Your task to perform on an android device: open app "Adobe Acrobat Reader: Edit PDF" (install if not already installed) and enter user name: "arthritis@inbox.com" and password: "scythes" Image 0: 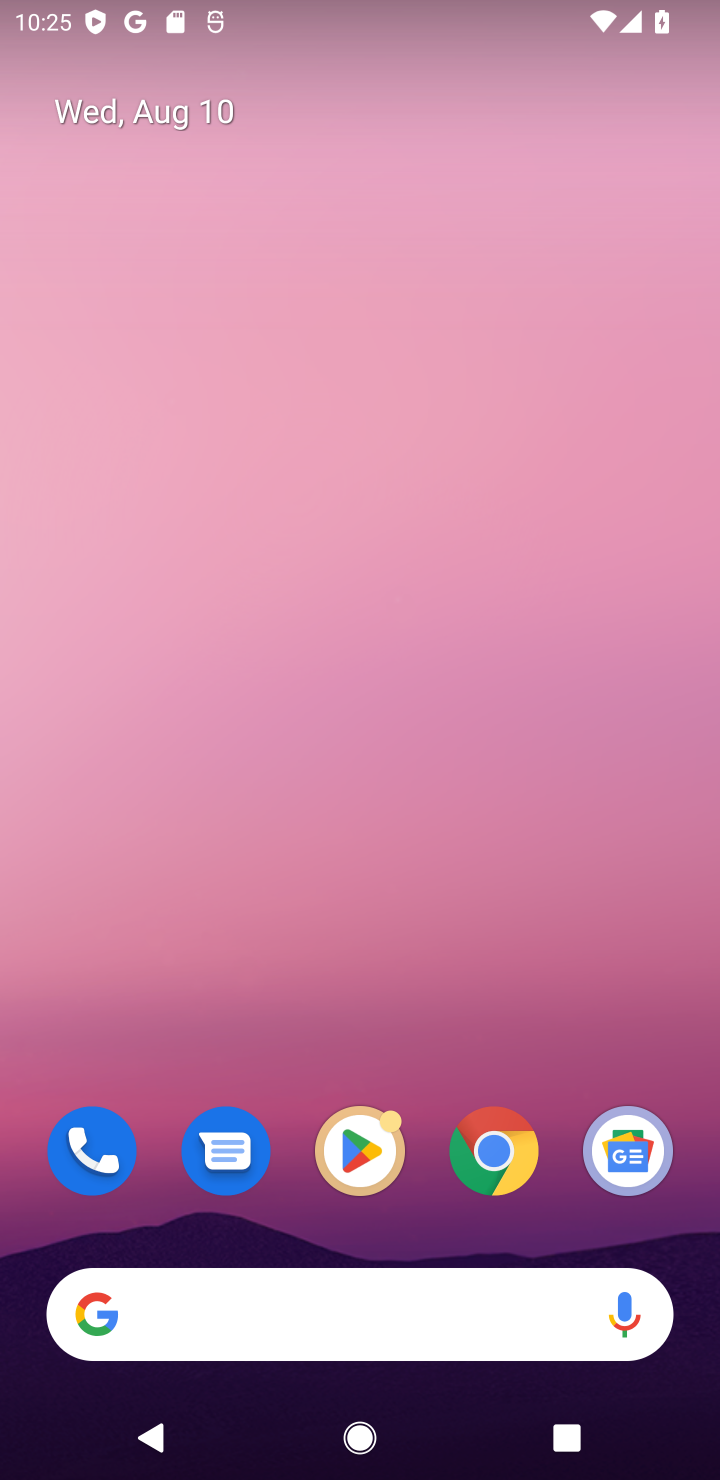
Step 0: click (343, 1140)
Your task to perform on an android device: open app "Adobe Acrobat Reader: Edit PDF" (install if not already installed) and enter user name: "arthritis@inbox.com" and password: "scythes" Image 1: 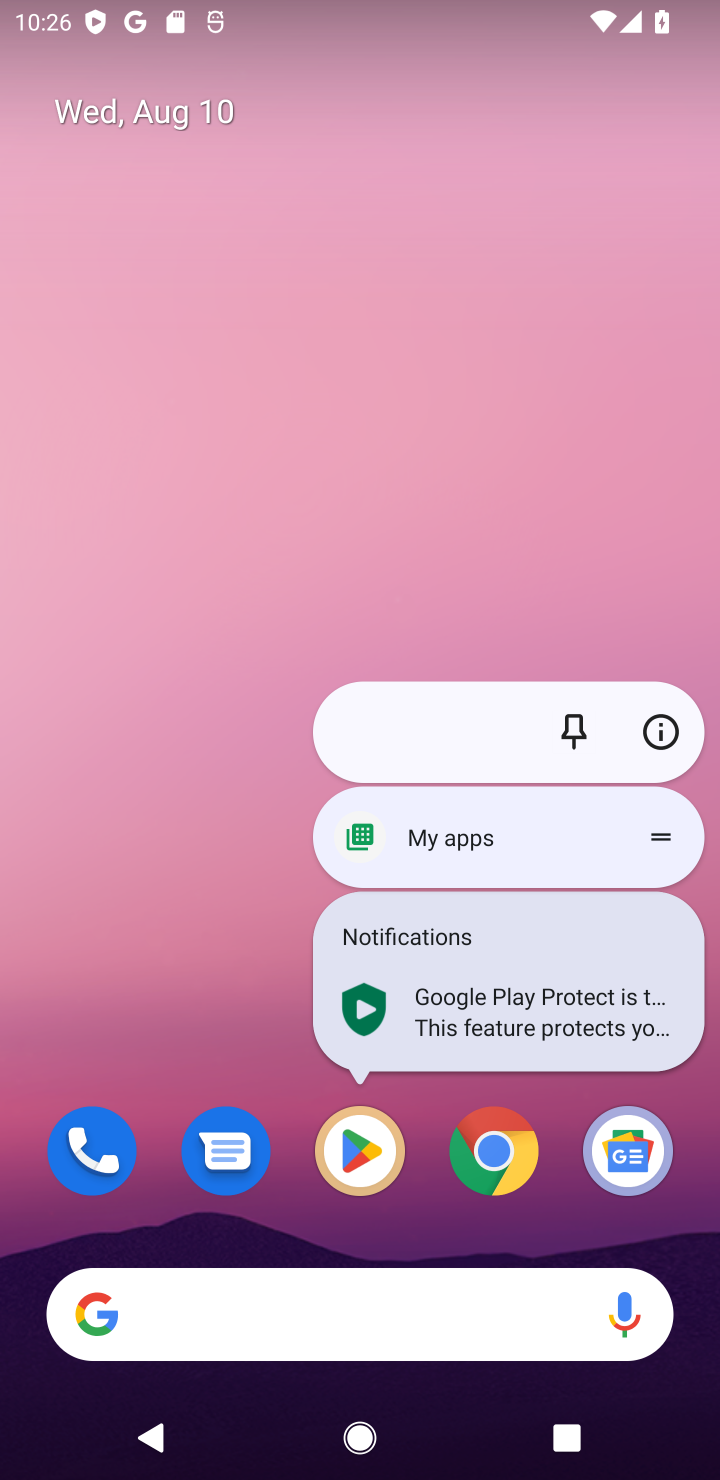
Step 1: click (348, 1167)
Your task to perform on an android device: open app "Adobe Acrobat Reader: Edit PDF" (install if not already installed) and enter user name: "arthritis@inbox.com" and password: "scythes" Image 2: 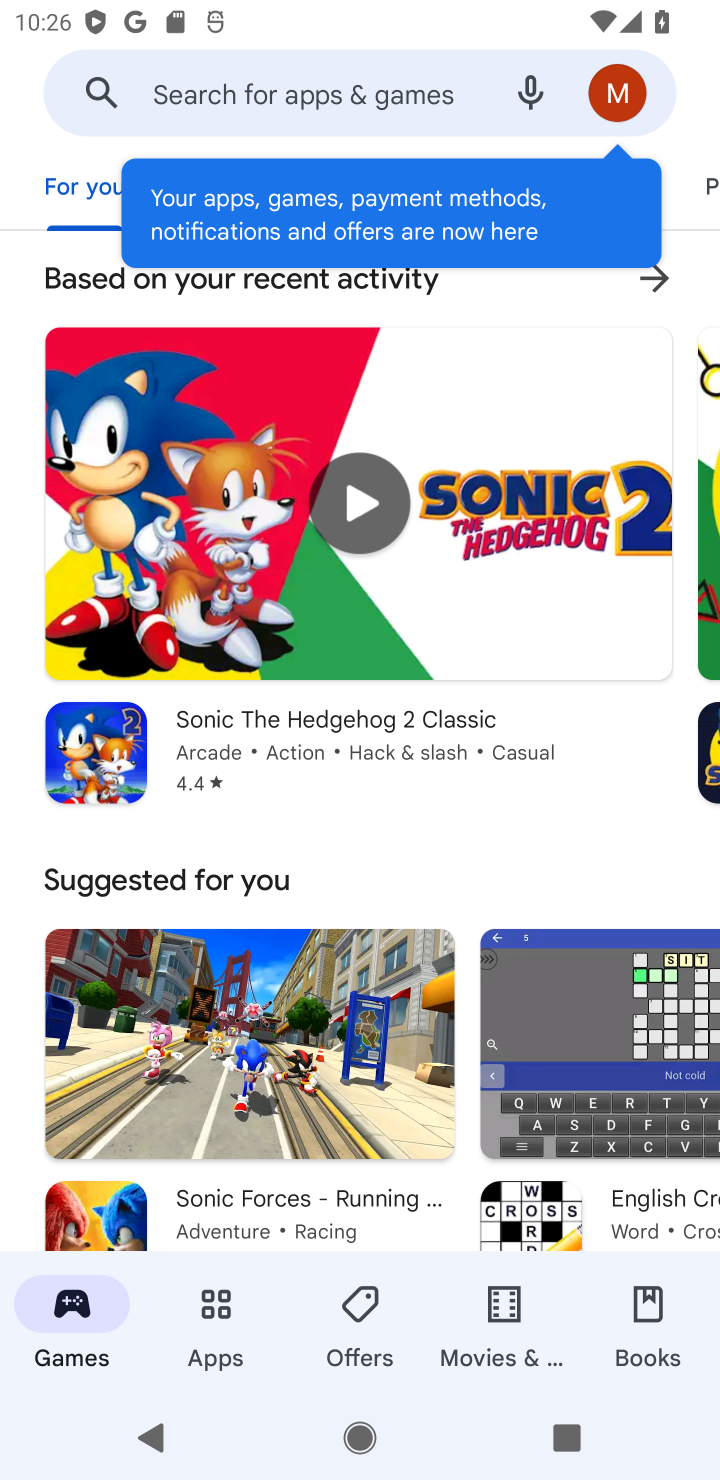
Step 2: click (318, 101)
Your task to perform on an android device: open app "Adobe Acrobat Reader: Edit PDF" (install if not already installed) and enter user name: "arthritis@inbox.com" and password: "scythes" Image 3: 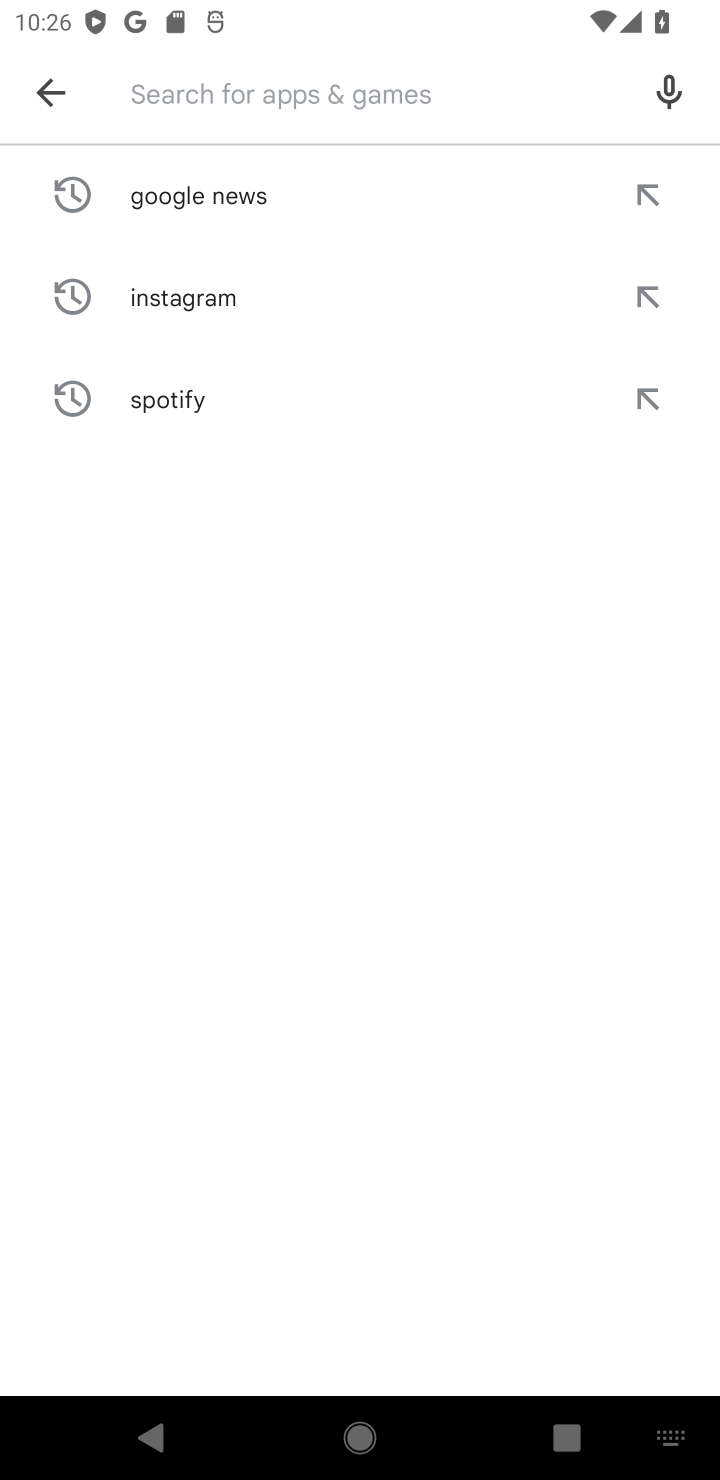
Step 3: click (257, 81)
Your task to perform on an android device: open app "Adobe Acrobat Reader: Edit PDF" (install if not already installed) and enter user name: "arthritis@inbox.com" and password: "scythes" Image 4: 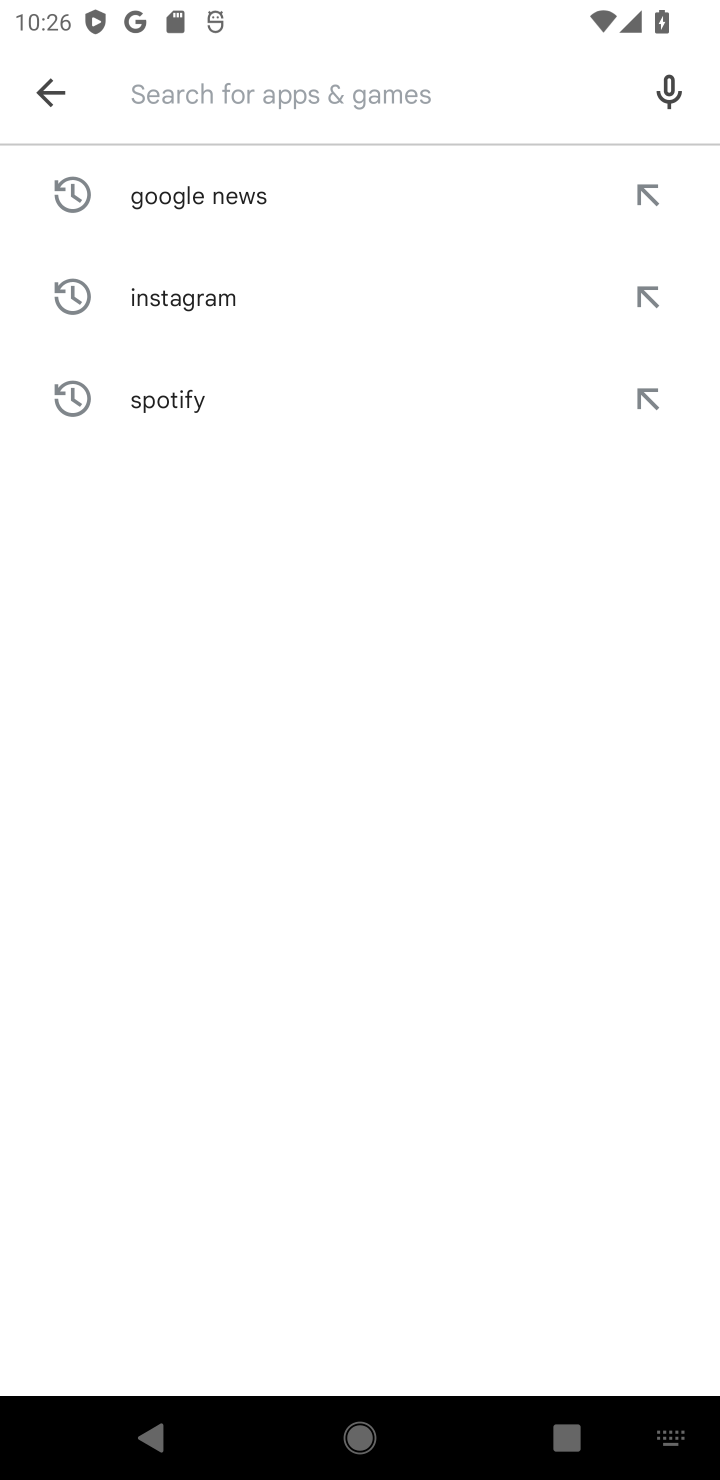
Step 4: type "Adobe Acrobat Reade"
Your task to perform on an android device: open app "Adobe Acrobat Reader: Edit PDF" (install if not already installed) and enter user name: "arthritis@inbox.com" and password: "scythes" Image 5: 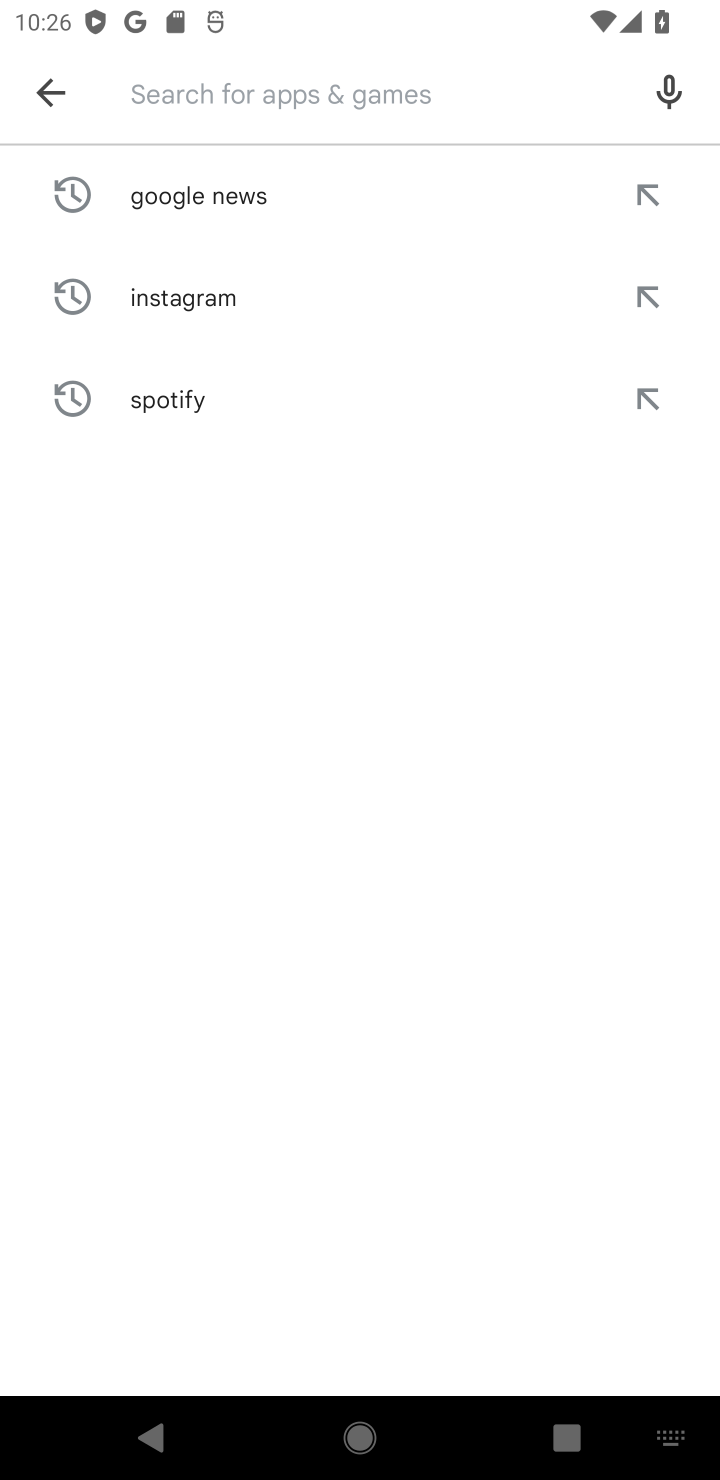
Step 5: click (313, 769)
Your task to perform on an android device: open app "Adobe Acrobat Reader: Edit PDF" (install if not already installed) and enter user name: "arthritis@inbox.com" and password: "scythes" Image 6: 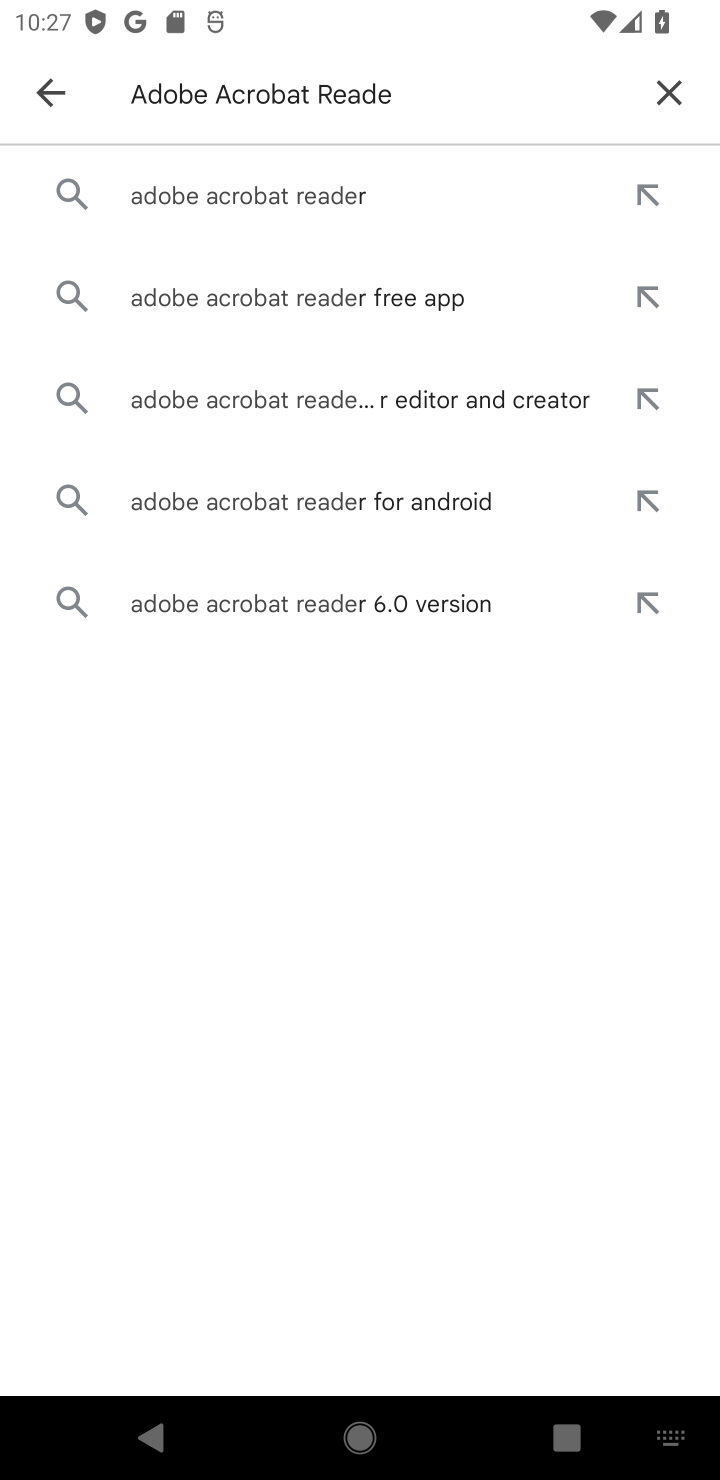
Step 6: press back button
Your task to perform on an android device: open app "Adobe Acrobat Reader: Edit PDF" (install if not already installed) and enter user name: "arthritis@inbox.com" and password: "scythes" Image 7: 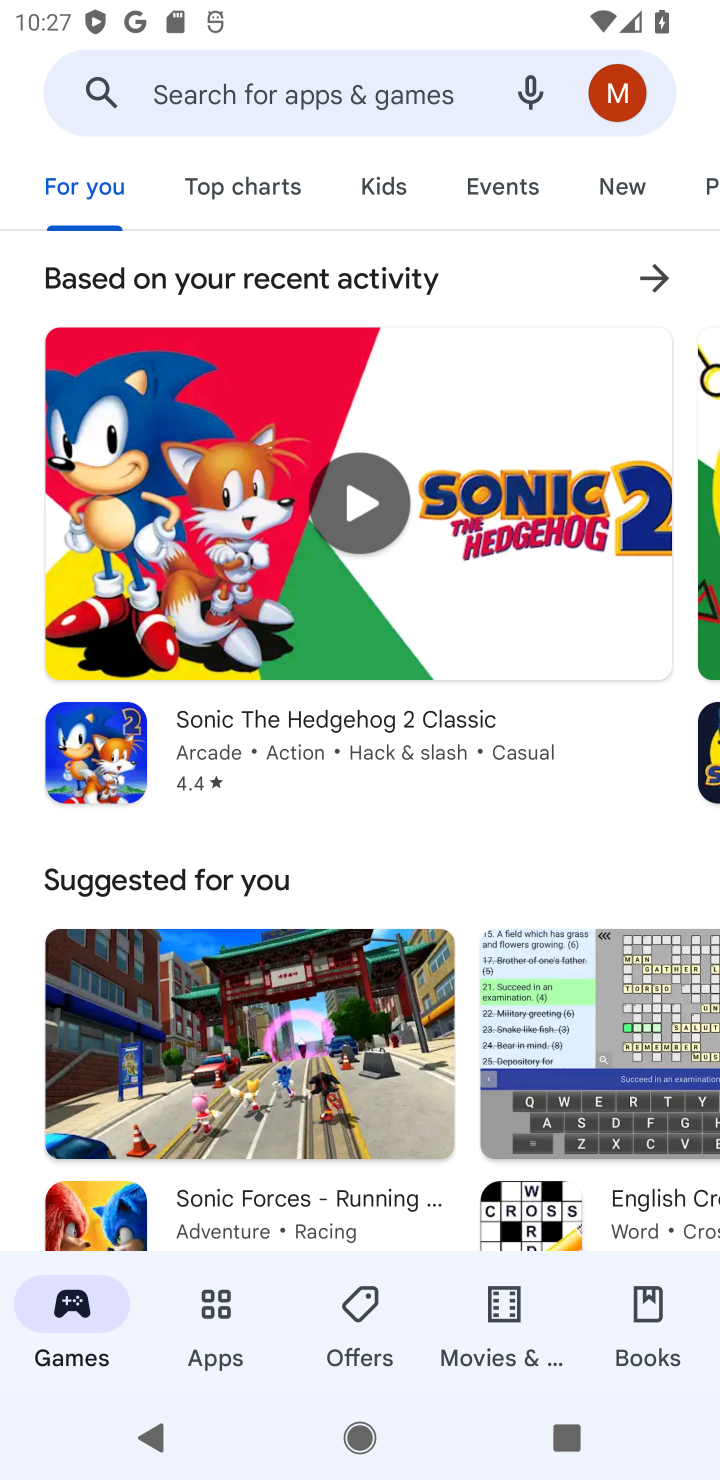
Step 7: click (336, 92)
Your task to perform on an android device: open app "Adobe Acrobat Reader: Edit PDF" (install if not already installed) and enter user name: "arthritis@inbox.com" and password: "scythes" Image 8: 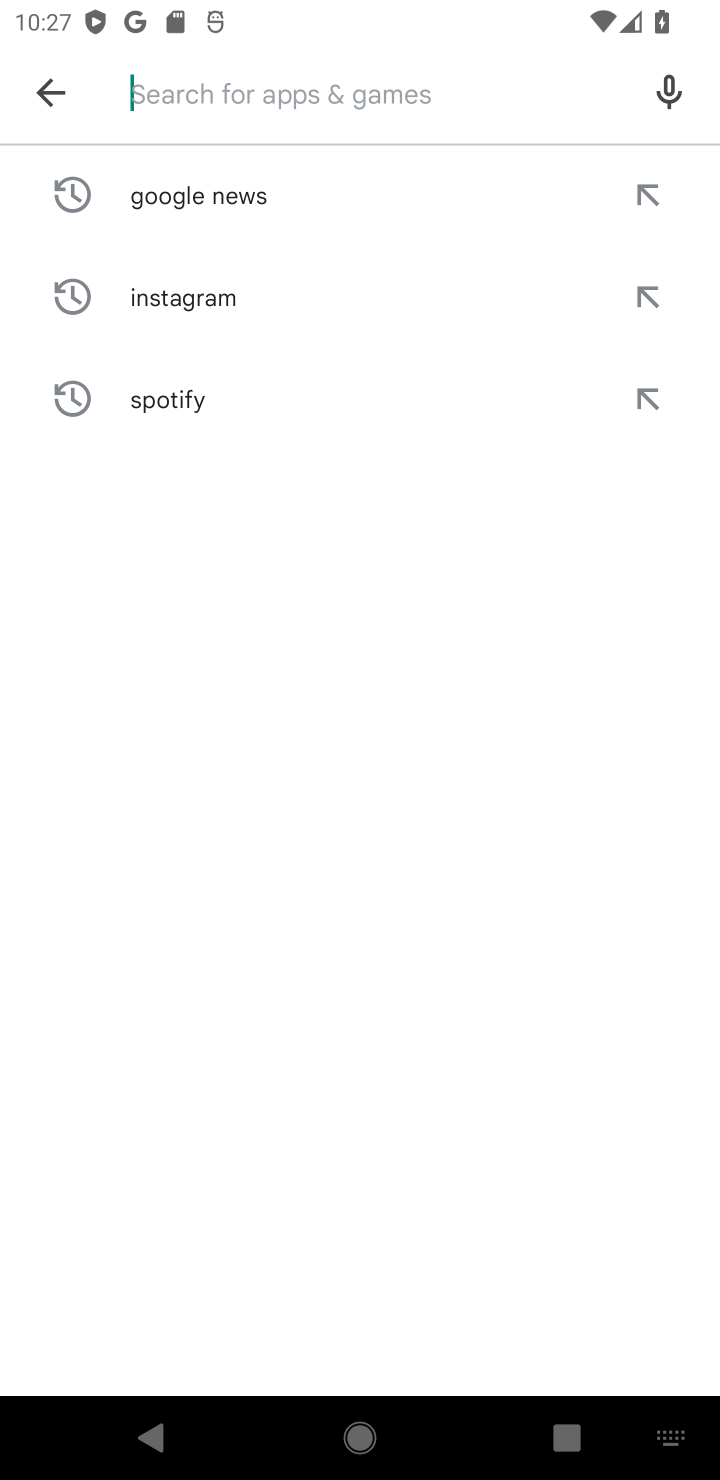
Step 8: click (278, 88)
Your task to perform on an android device: open app "Adobe Acrobat Reader: Edit PDF" (install if not already installed) and enter user name: "arthritis@inbox.com" and password: "scythes" Image 9: 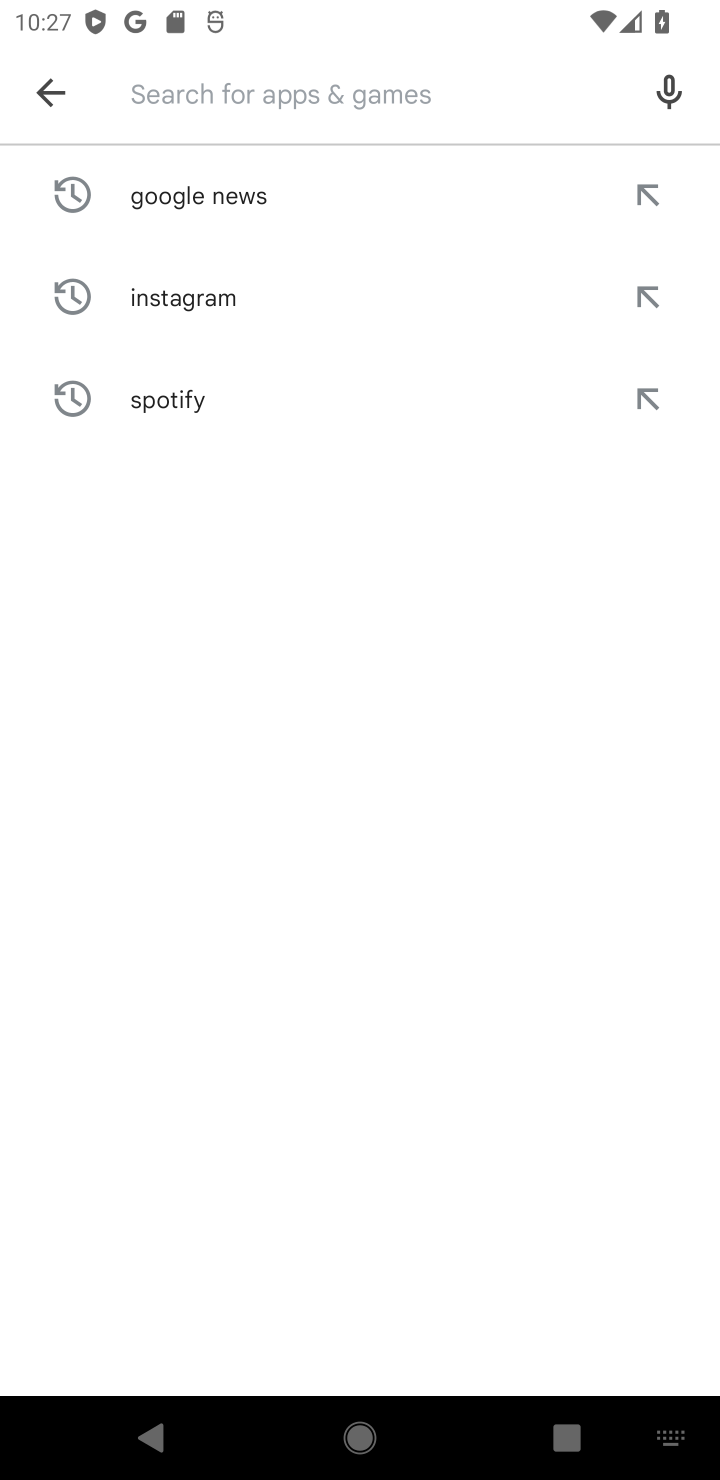
Step 9: type "Adobe Acrobat Reader"
Your task to perform on an android device: open app "Adobe Acrobat Reader: Edit PDF" (install if not already installed) and enter user name: "arthritis@inbox.com" and password: "scythes" Image 10: 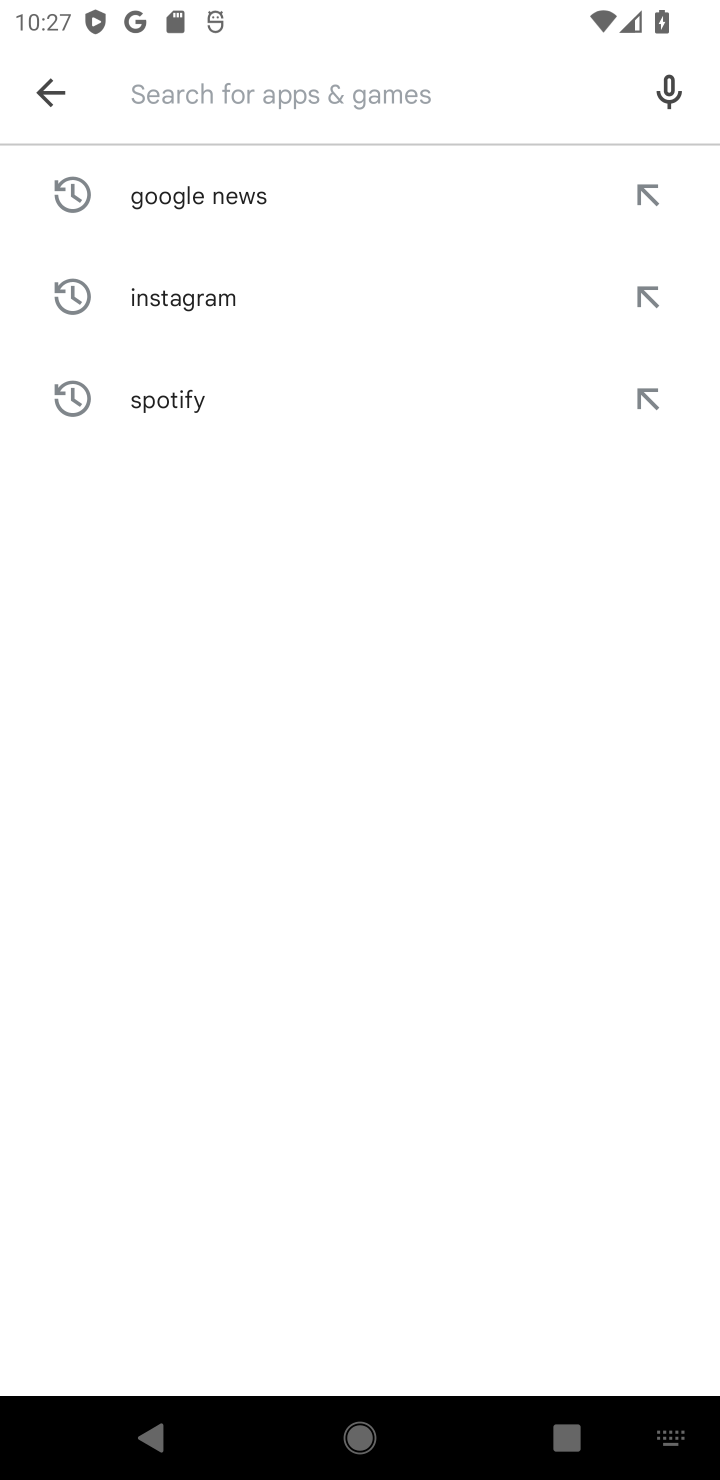
Step 10: click (150, 881)
Your task to perform on an android device: open app "Adobe Acrobat Reader: Edit PDF" (install if not already installed) and enter user name: "arthritis@inbox.com" and password: "scythes" Image 11: 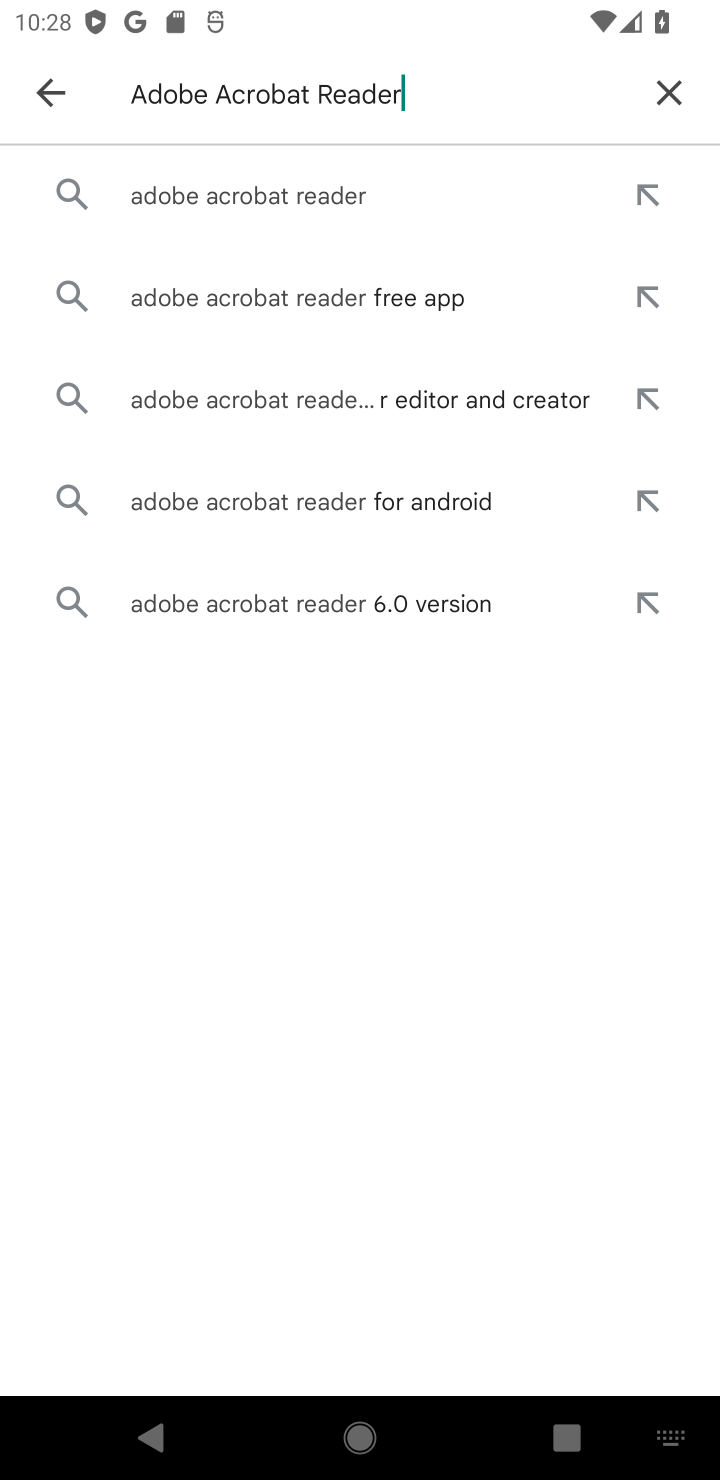
Step 11: click (286, 189)
Your task to perform on an android device: open app "Adobe Acrobat Reader: Edit PDF" (install if not already installed) and enter user name: "arthritis@inbox.com" and password: "scythes" Image 12: 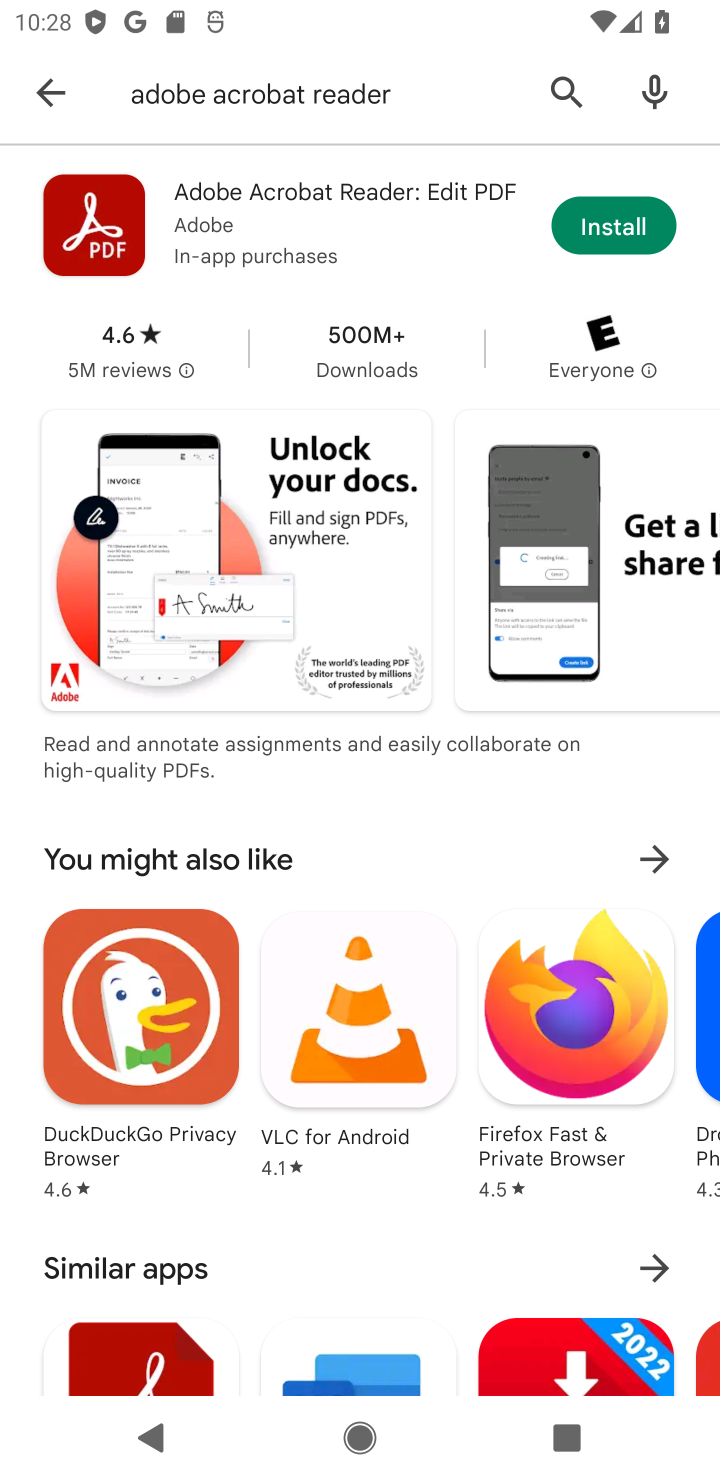
Step 12: click (594, 236)
Your task to perform on an android device: open app "Adobe Acrobat Reader: Edit PDF" (install if not already installed) and enter user name: "arthritis@inbox.com" and password: "scythes" Image 13: 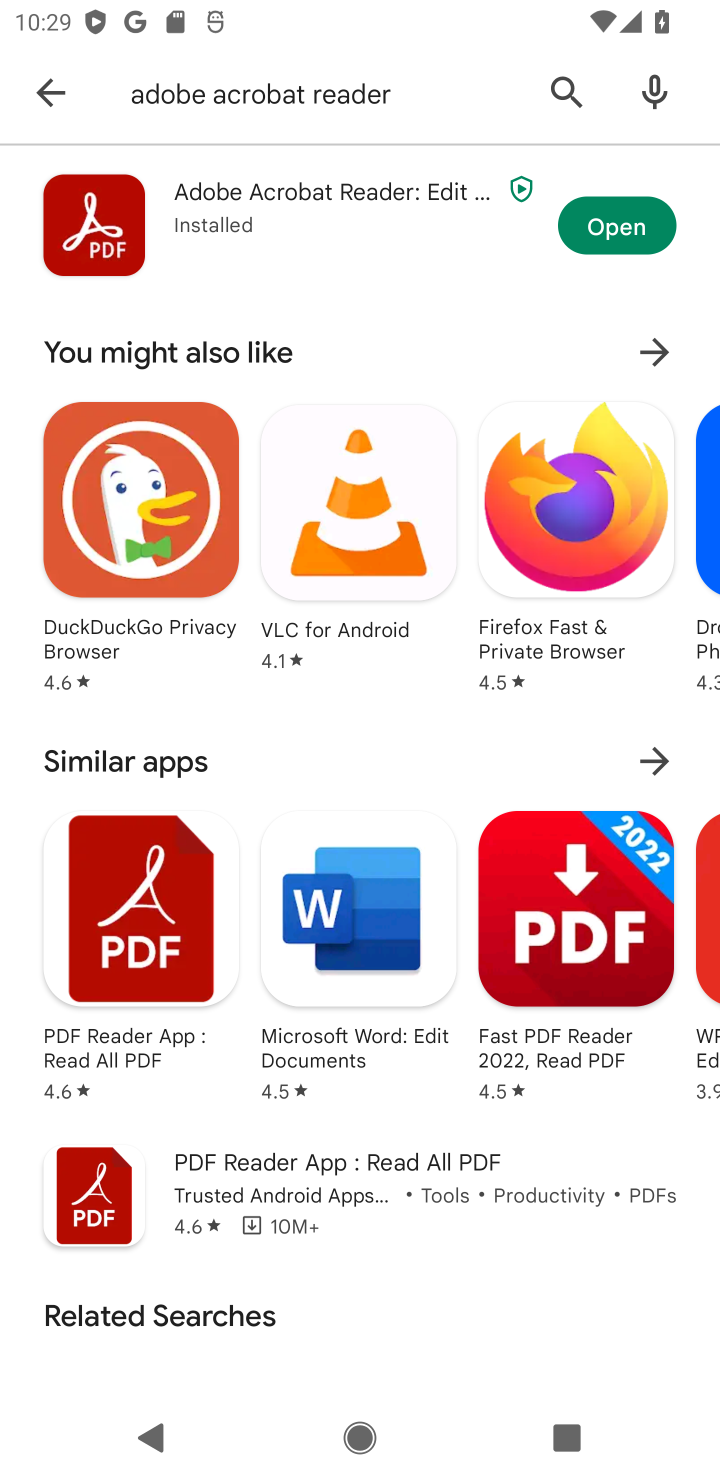
Step 13: click (600, 248)
Your task to perform on an android device: open app "Adobe Acrobat Reader: Edit PDF" (install if not already installed) and enter user name: "arthritis@inbox.com" and password: "scythes" Image 14: 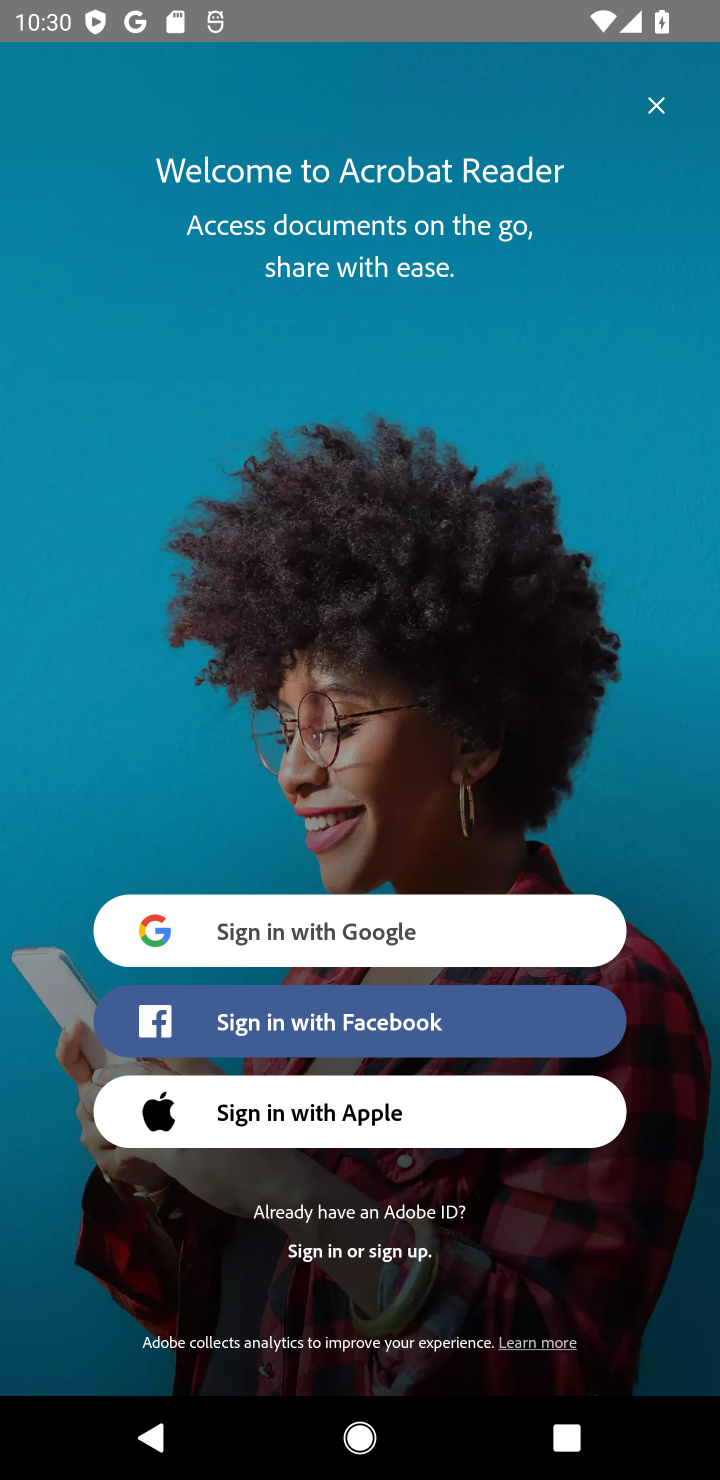
Step 14: click (360, 1237)
Your task to perform on an android device: open app "Adobe Acrobat Reader: Edit PDF" (install if not already installed) and enter user name: "arthritis@inbox.com" and password: "scythes" Image 15: 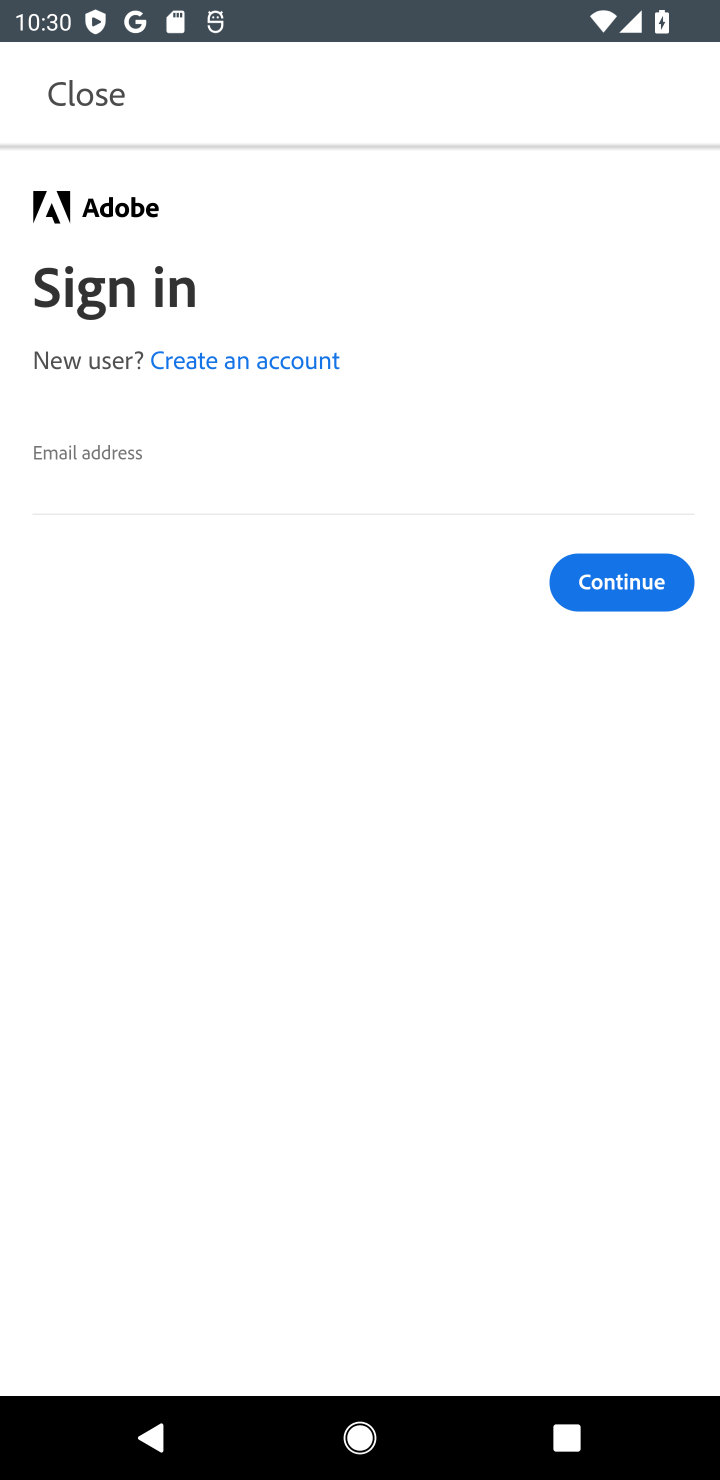
Step 15: click (88, 465)
Your task to perform on an android device: open app "Adobe Acrobat Reader: Edit PDF" (install if not already installed) and enter user name: "arthritis@inbox.com" and password: "scythes" Image 16: 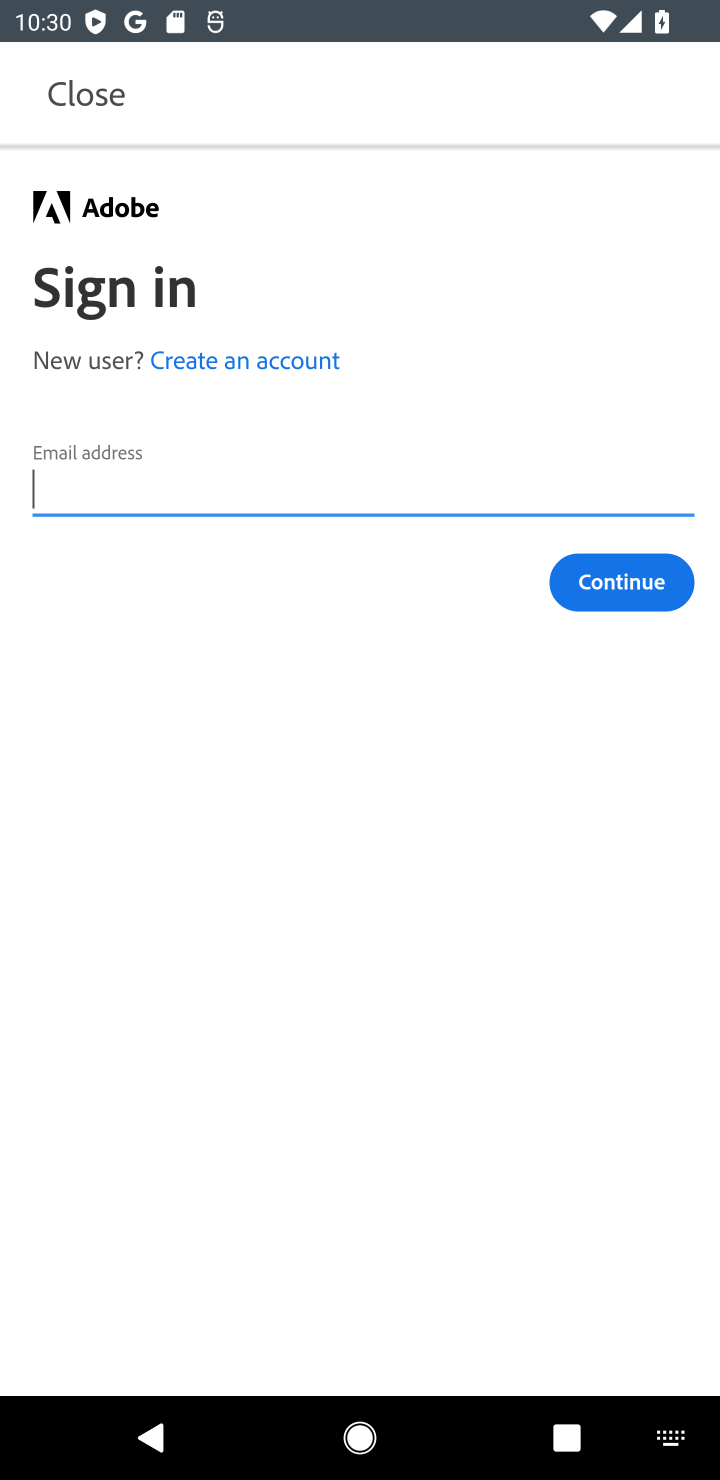
Step 16: type "arthritis@inbox.com"
Your task to perform on an android device: open app "Adobe Acrobat Reader: Edit PDF" (install if not already installed) and enter user name: "arthritis@inbox.com" and password: "scythes" Image 17: 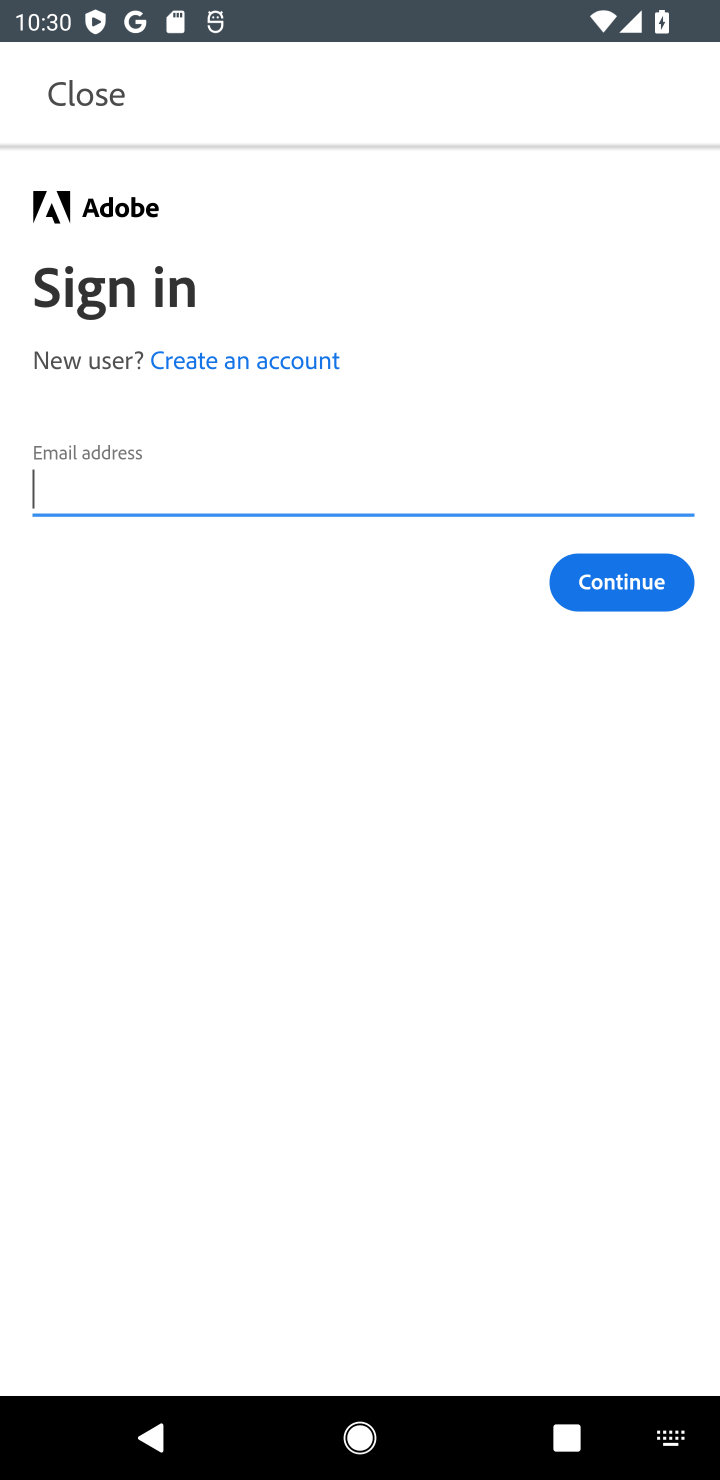
Step 17: click (351, 854)
Your task to perform on an android device: open app "Adobe Acrobat Reader: Edit PDF" (install if not already installed) and enter user name: "arthritis@inbox.com" and password: "scythes" Image 18: 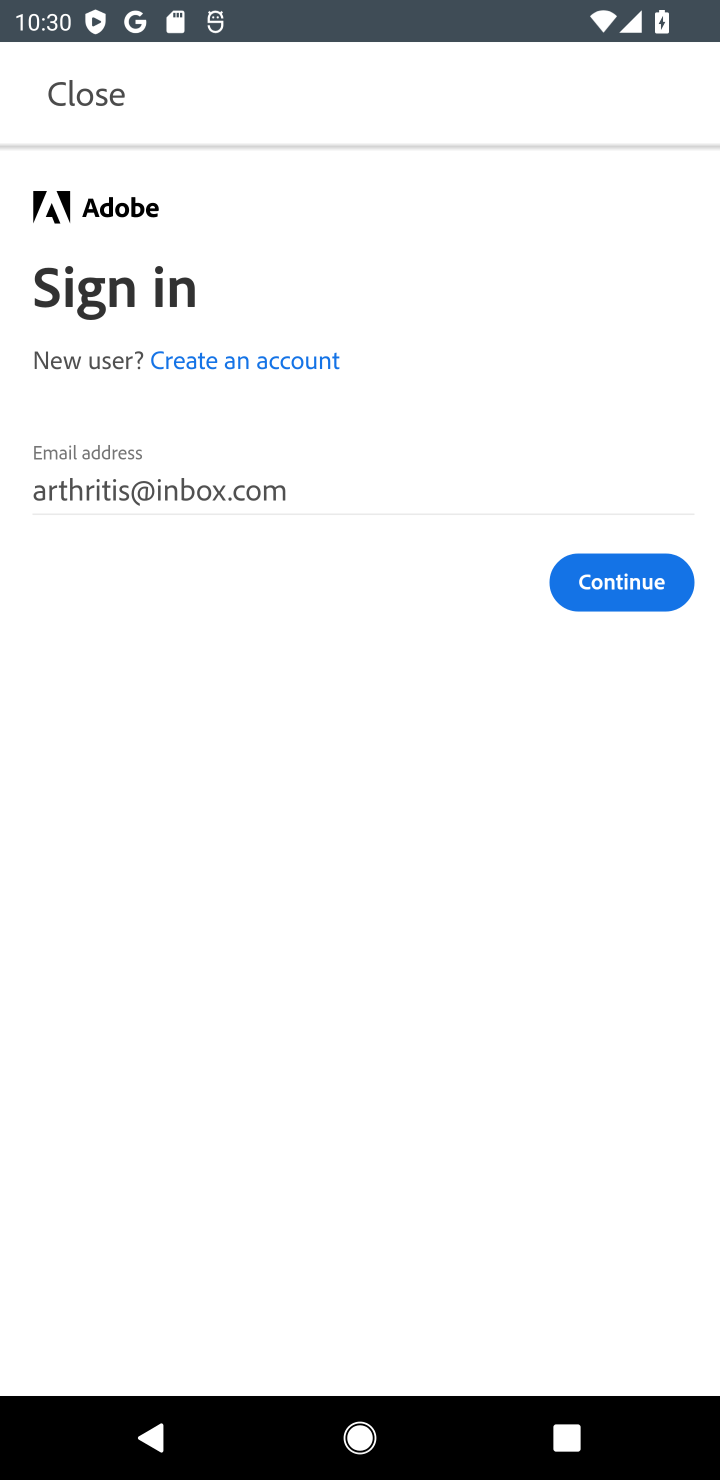
Step 18: click (569, 568)
Your task to perform on an android device: open app "Adobe Acrobat Reader: Edit PDF" (install if not already installed) and enter user name: "arthritis@inbox.com" and password: "scythes" Image 19: 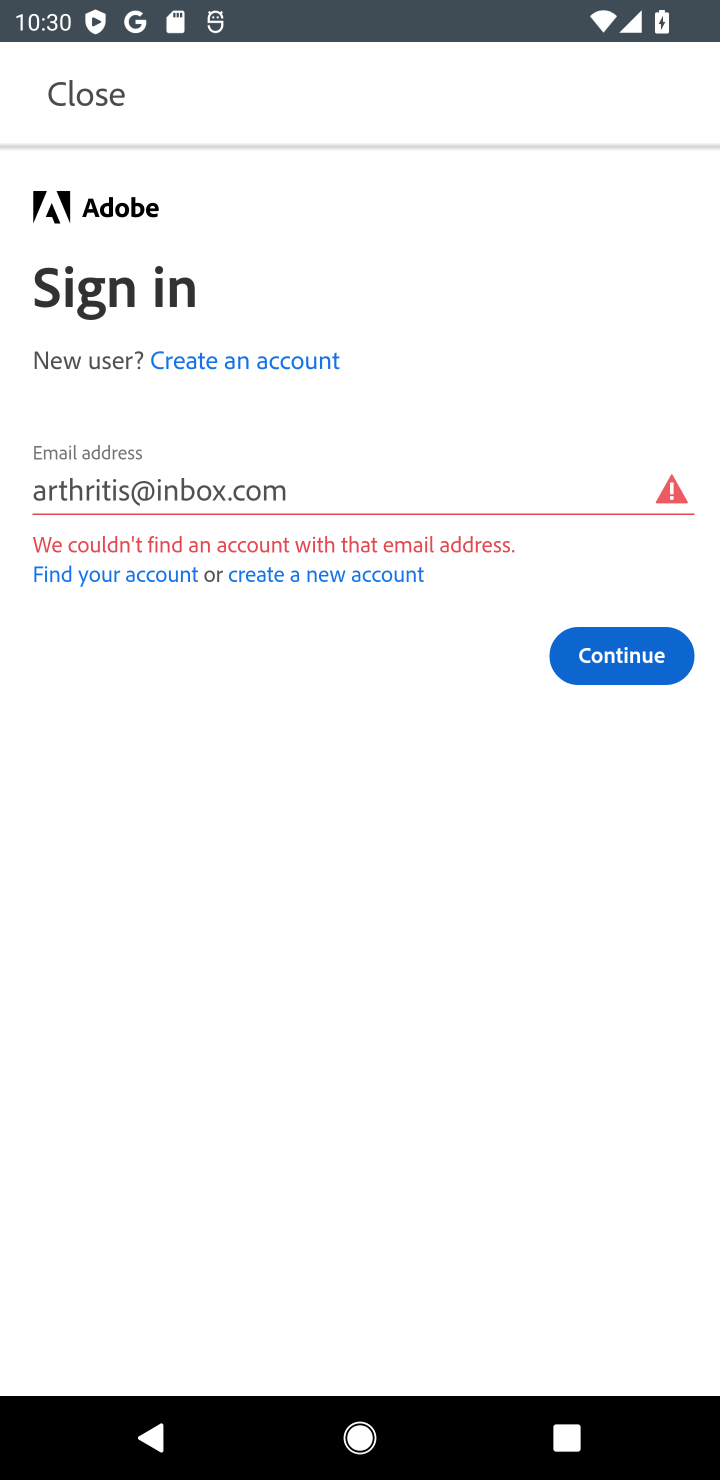
Step 19: click (324, 475)
Your task to perform on an android device: open app "Adobe Acrobat Reader: Edit PDF" (install if not already installed) and enter user name: "arthritis@inbox.com" and password: "scythes" Image 20: 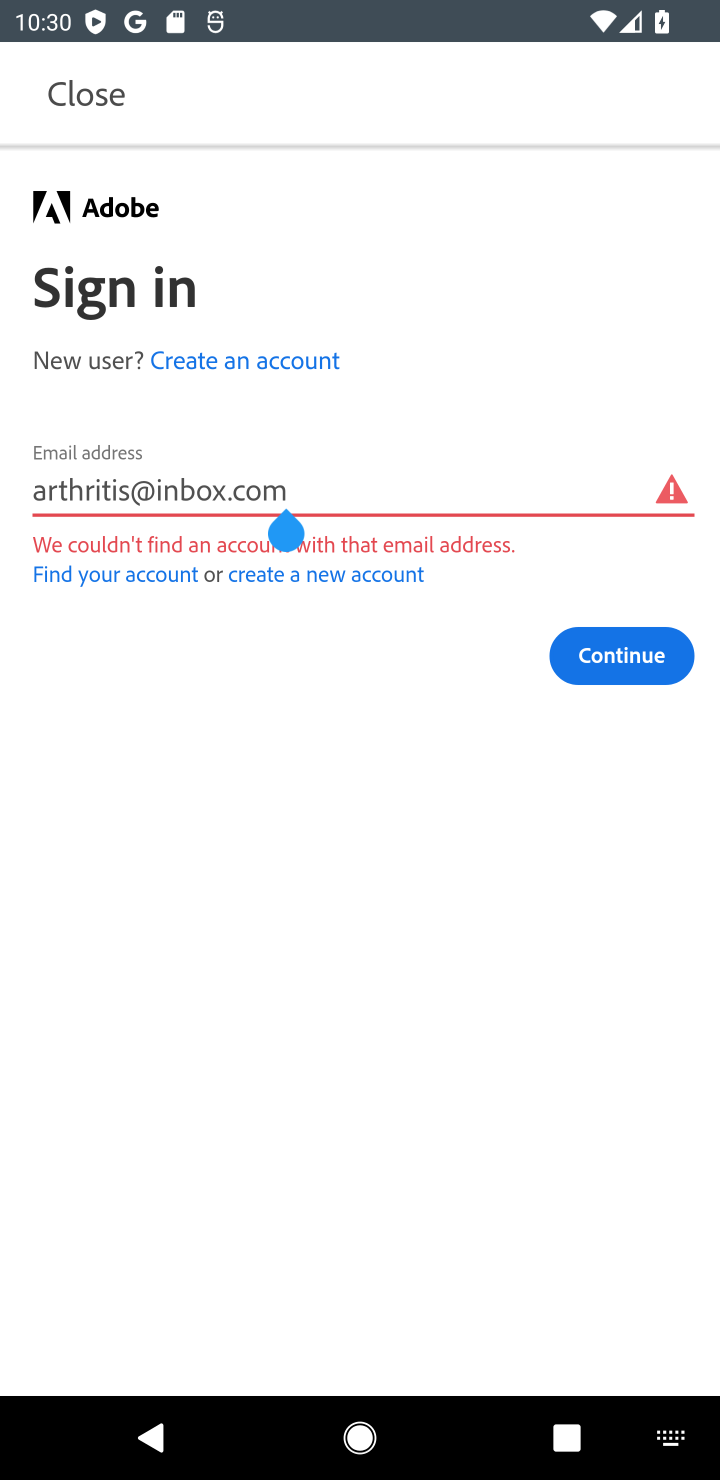
Step 20: task complete